Your task to perform on an android device: open app "DoorDash - Dasher" (install if not already installed) and go to login screen Image 0: 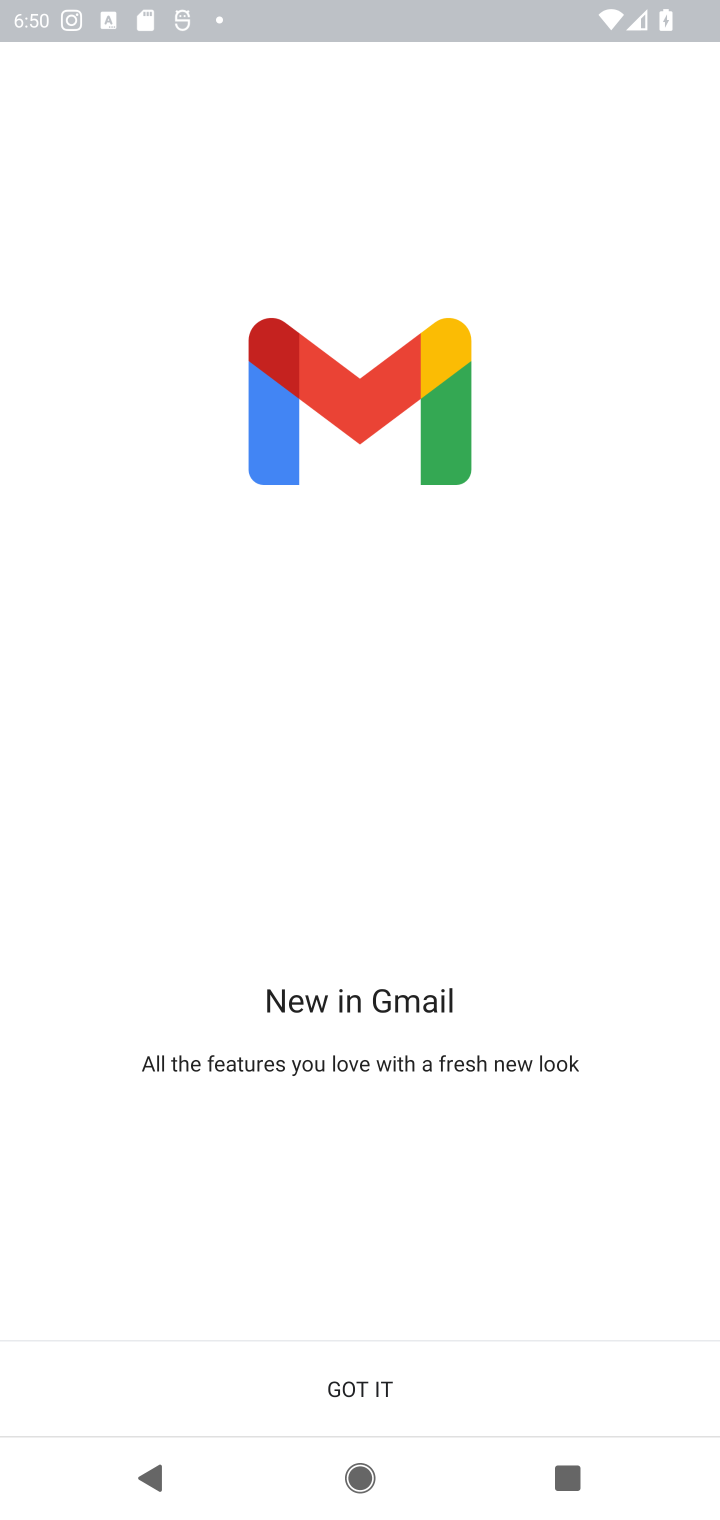
Step 0: press home button
Your task to perform on an android device: open app "DoorDash - Dasher" (install if not already installed) and go to login screen Image 1: 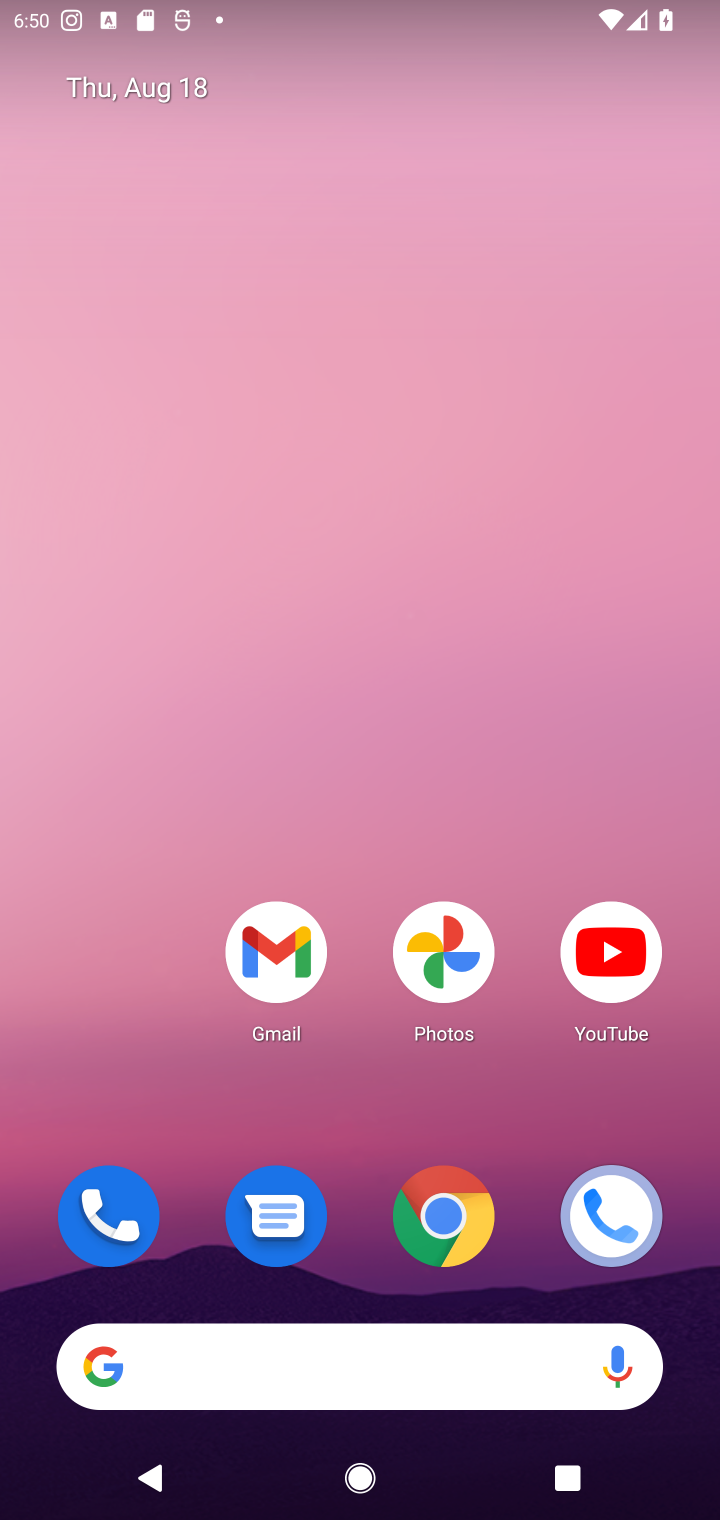
Step 1: drag from (362, 1104) to (360, 267)
Your task to perform on an android device: open app "DoorDash - Dasher" (install if not already installed) and go to login screen Image 2: 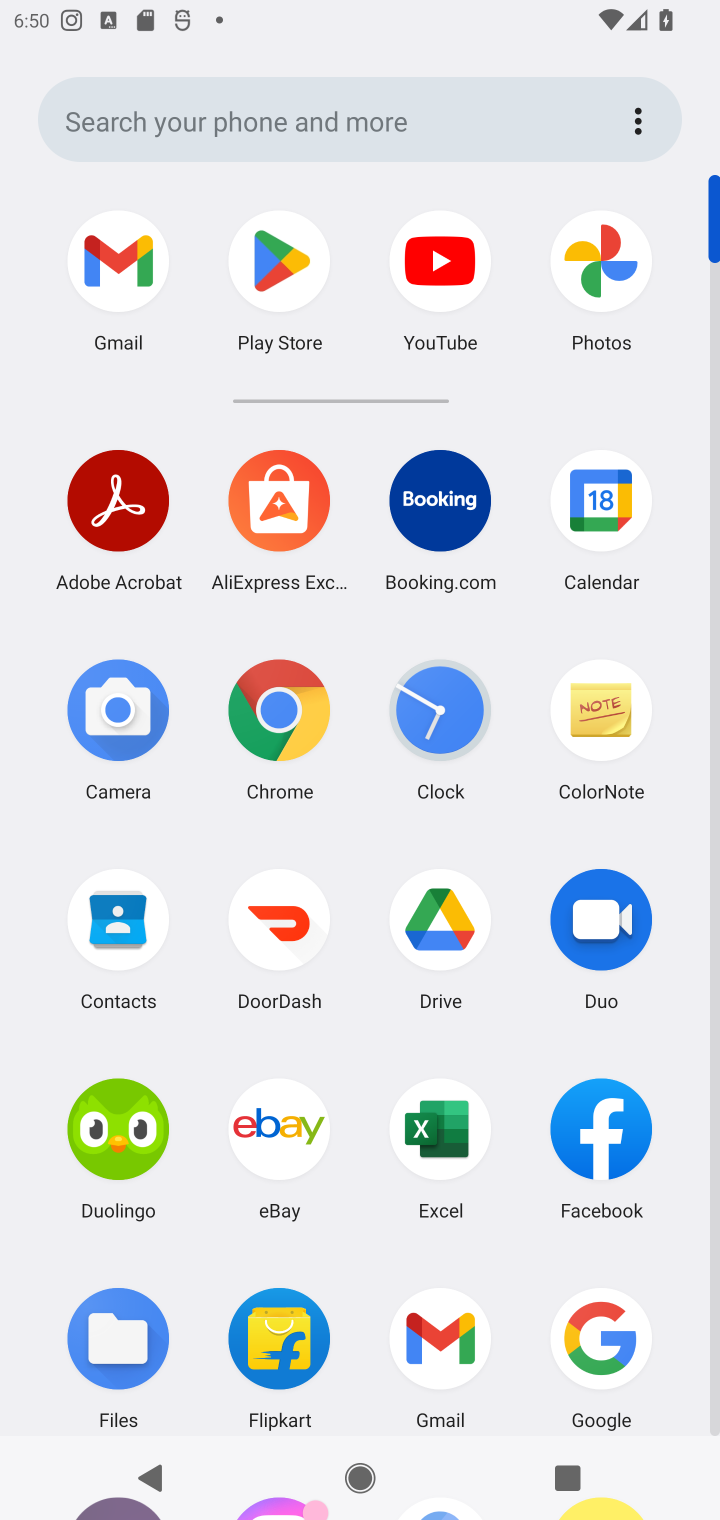
Step 2: click (280, 215)
Your task to perform on an android device: open app "DoorDash - Dasher" (install if not already installed) and go to login screen Image 3: 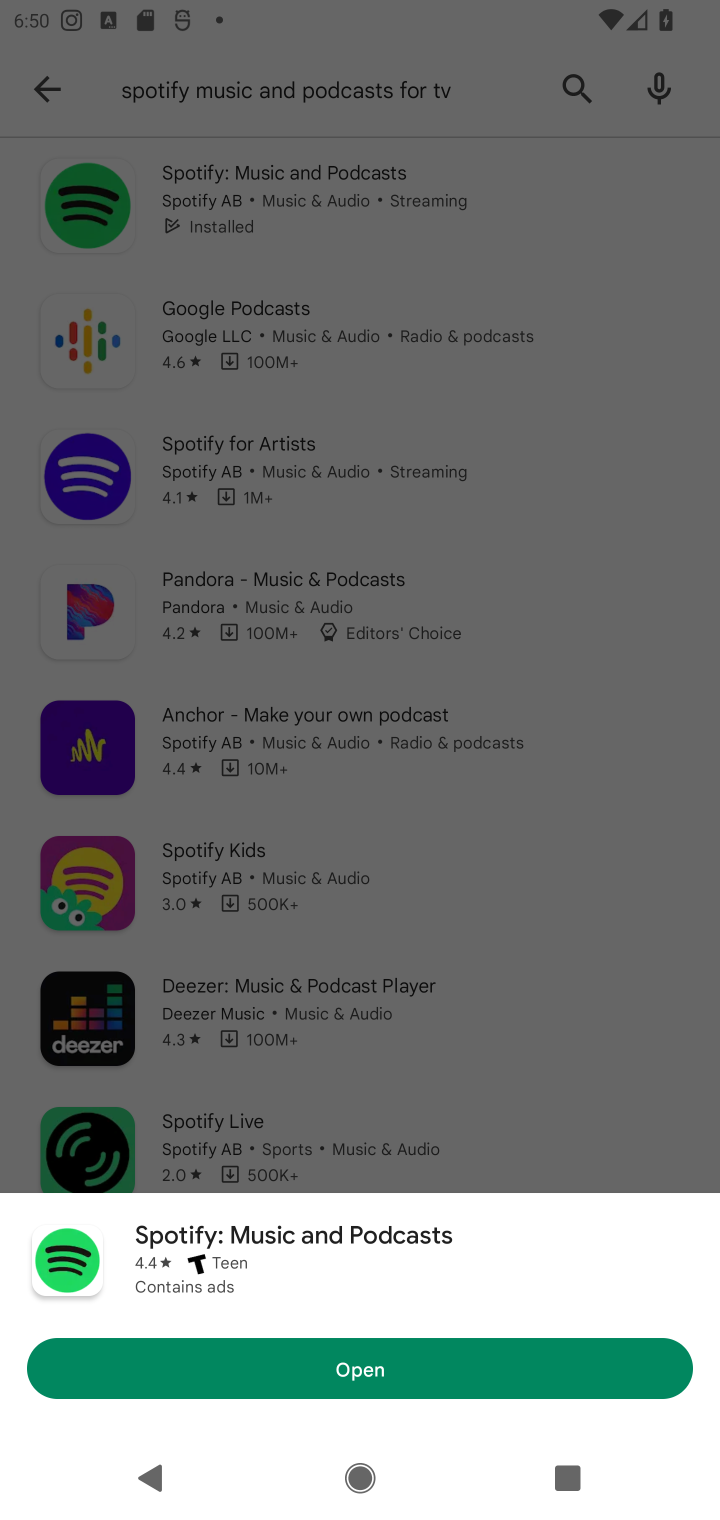
Step 3: click (595, 96)
Your task to perform on an android device: open app "DoorDash - Dasher" (install if not already installed) and go to login screen Image 4: 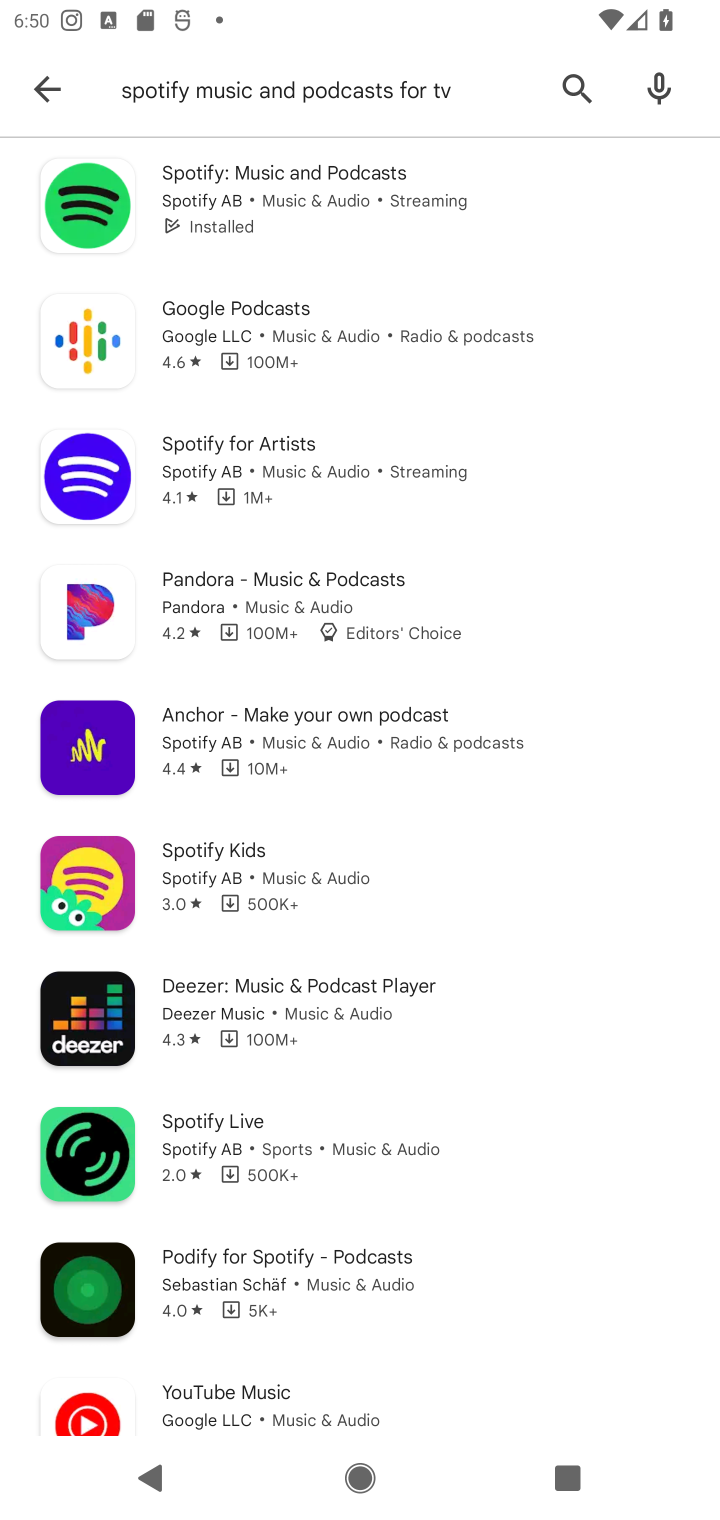
Step 4: click (580, 96)
Your task to perform on an android device: open app "DoorDash - Dasher" (install if not already installed) and go to login screen Image 5: 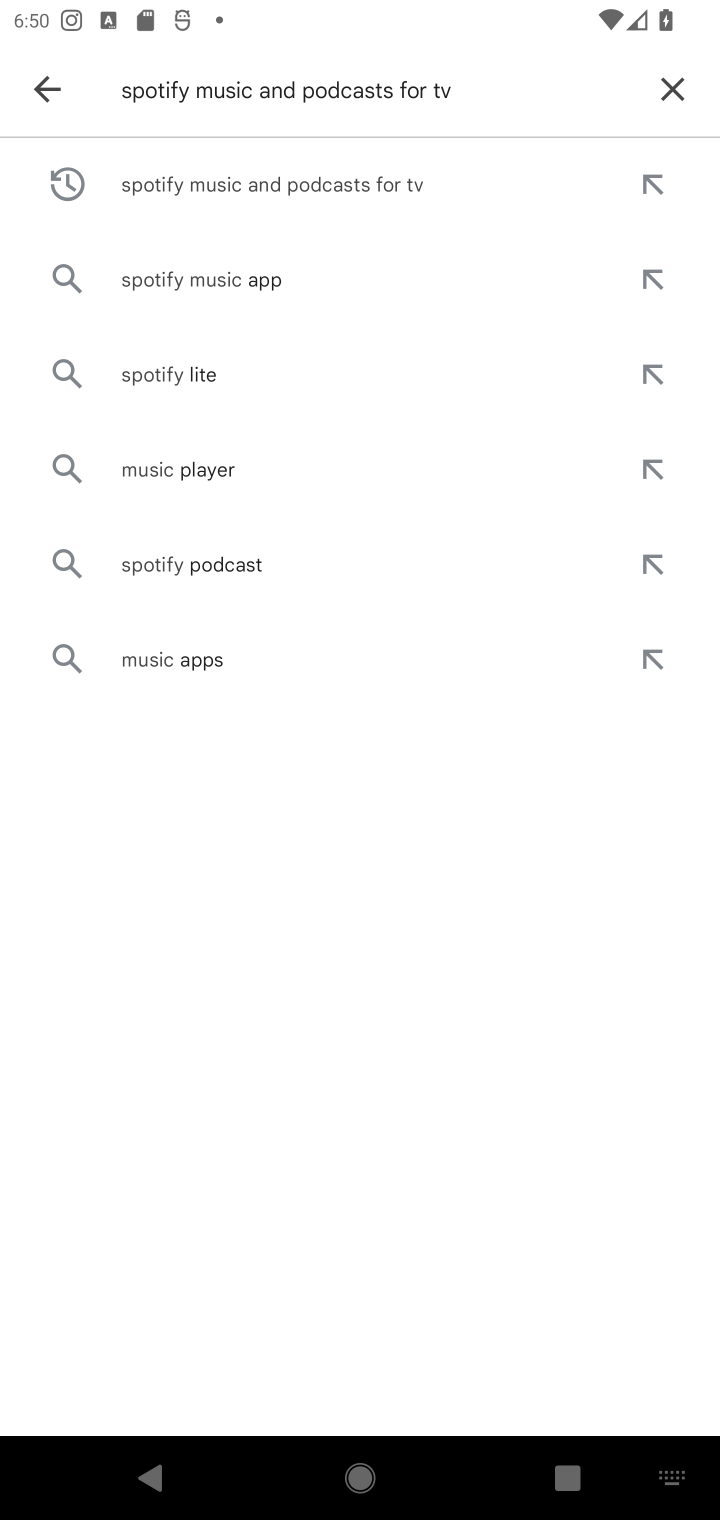
Step 5: click (681, 57)
Your task to perform on an android device: open app "DoorDash - Dasher" (install if not already installed) and go to login screen Image 6: 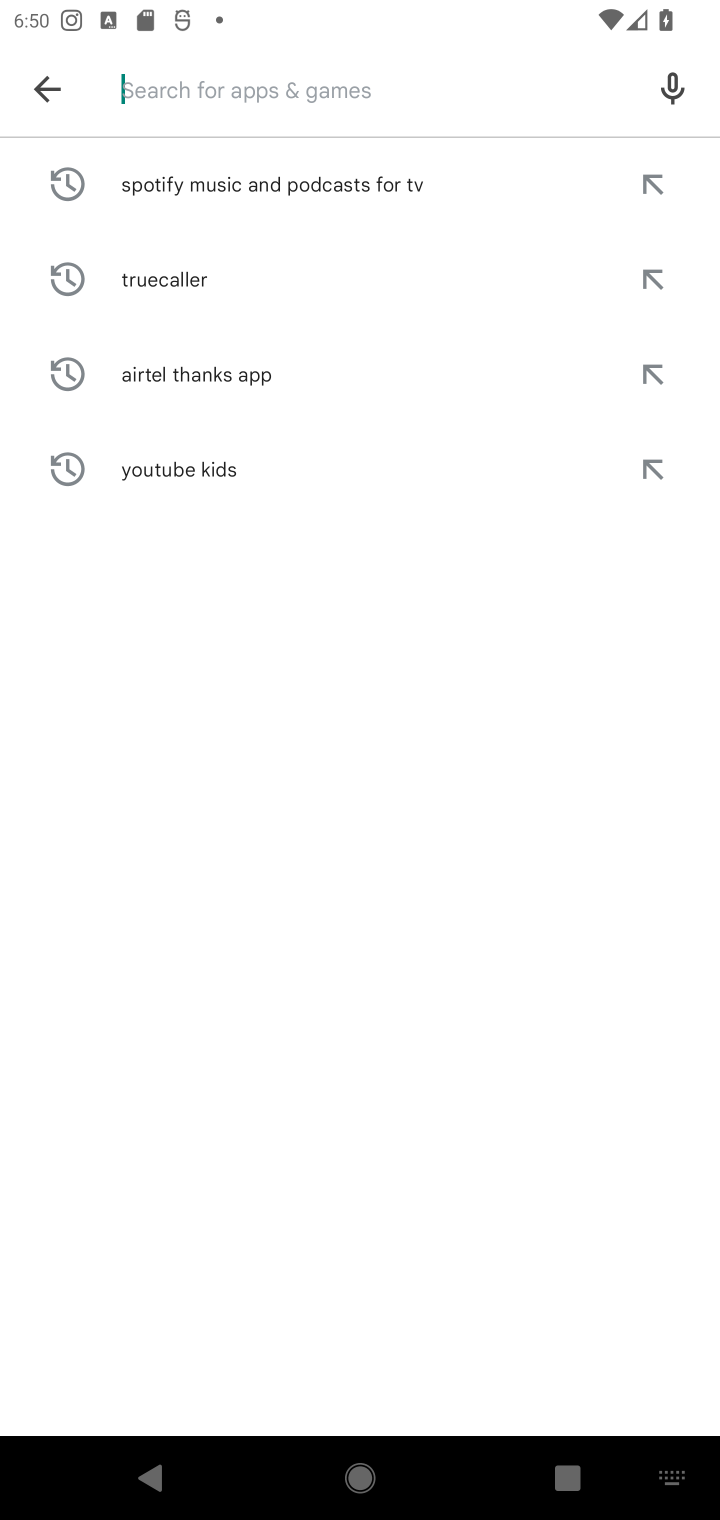
Step 6: type "DoorDash - Dasher"
Your task to perform on an android device: open app "DoorDash - Dasher" (install if not already installed) and go to login screen Image 7: 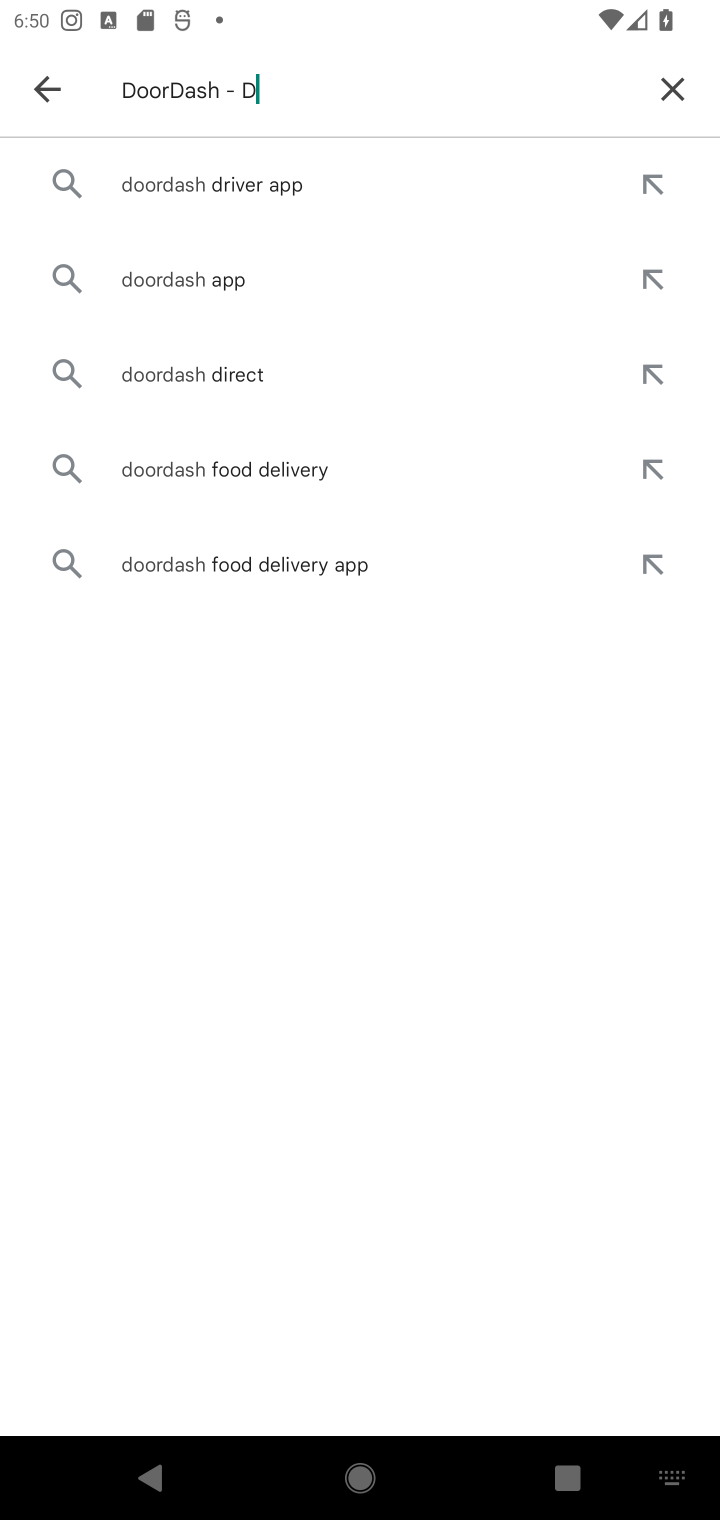
Step 7: type ""
Your task to perform on an android device: open app "DoorDash - Dasher" (install if not already installed) and go to login screen Image 8: 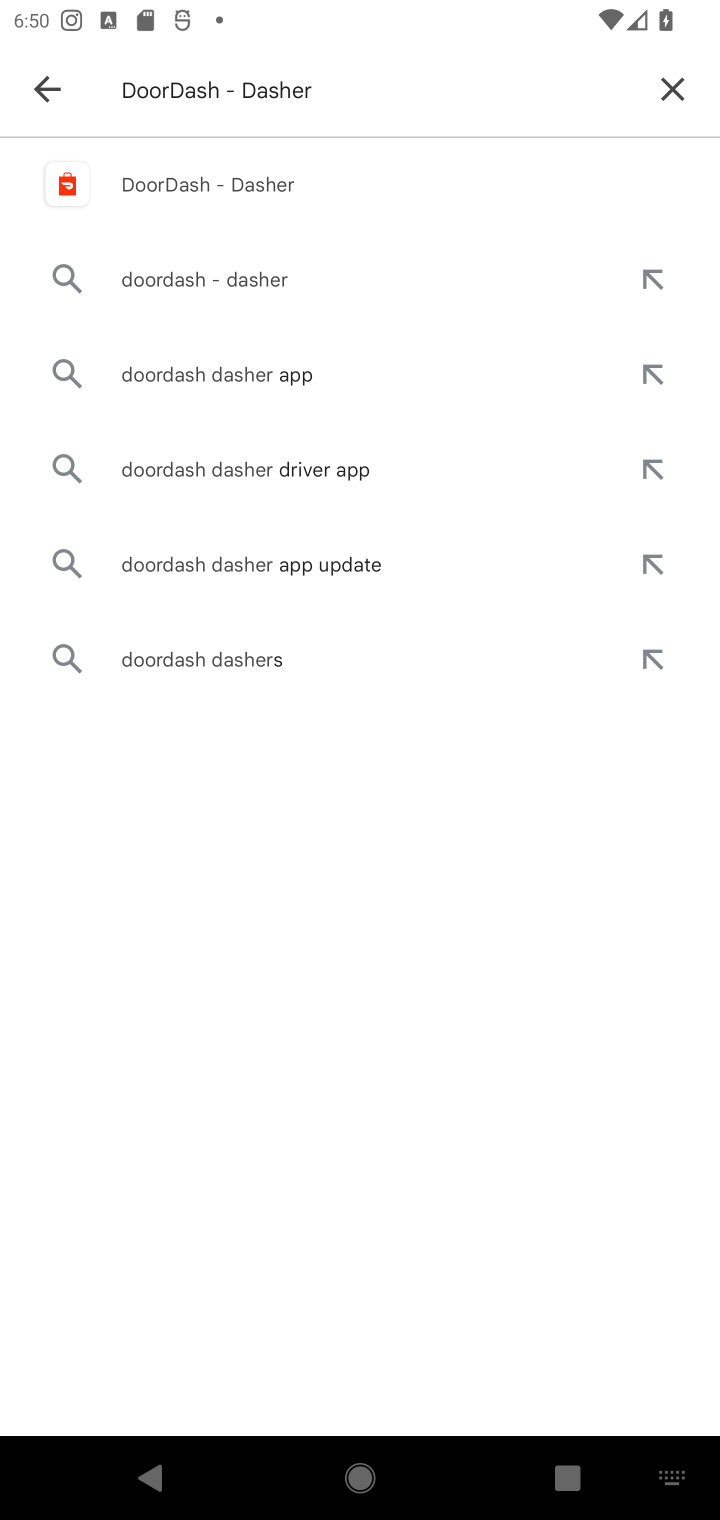
Step 8: click (240, 187)
Your task to perform on an android device: open app "DoorDash - Dasher" (install if not already installed) and go to login screen Image 9: 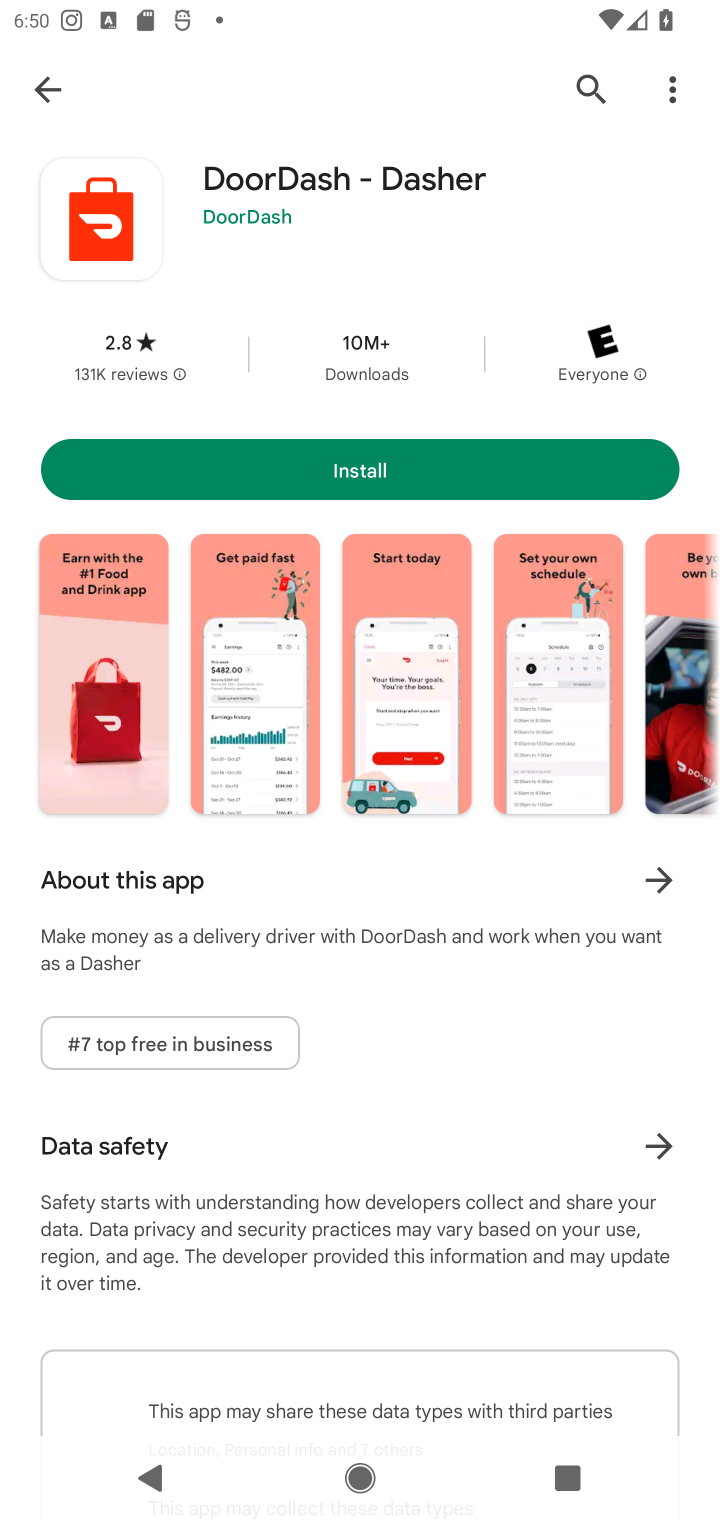
Step 9: click (312, 477)
Your task to perform on an android device: open app "DoorDash - Dasher" (install if not already installed) and go to login screen Image 10: 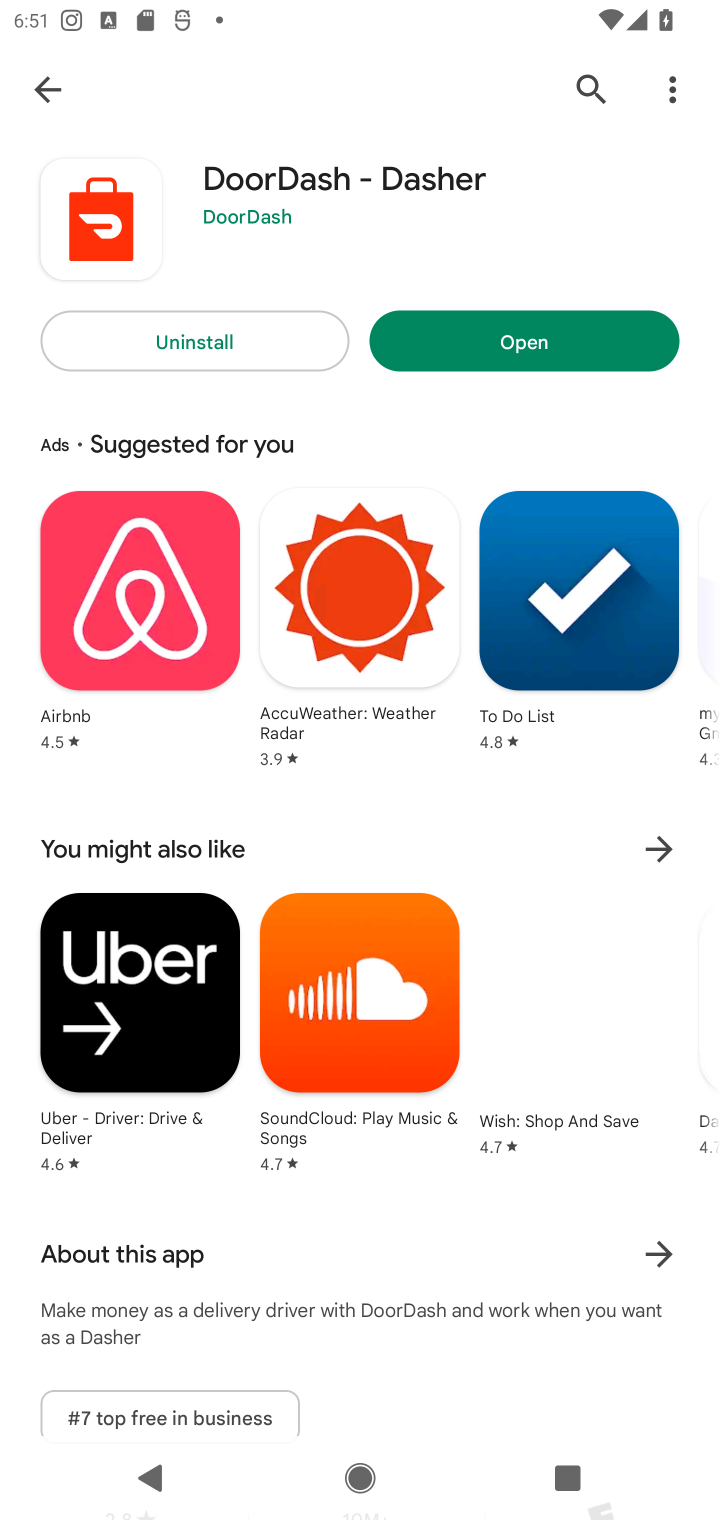
Step 10: click (633, 350)
Your task to perform on an android device: open app "DoorDash - Dasher" (install if not already installed) and go to login screen Image 11: 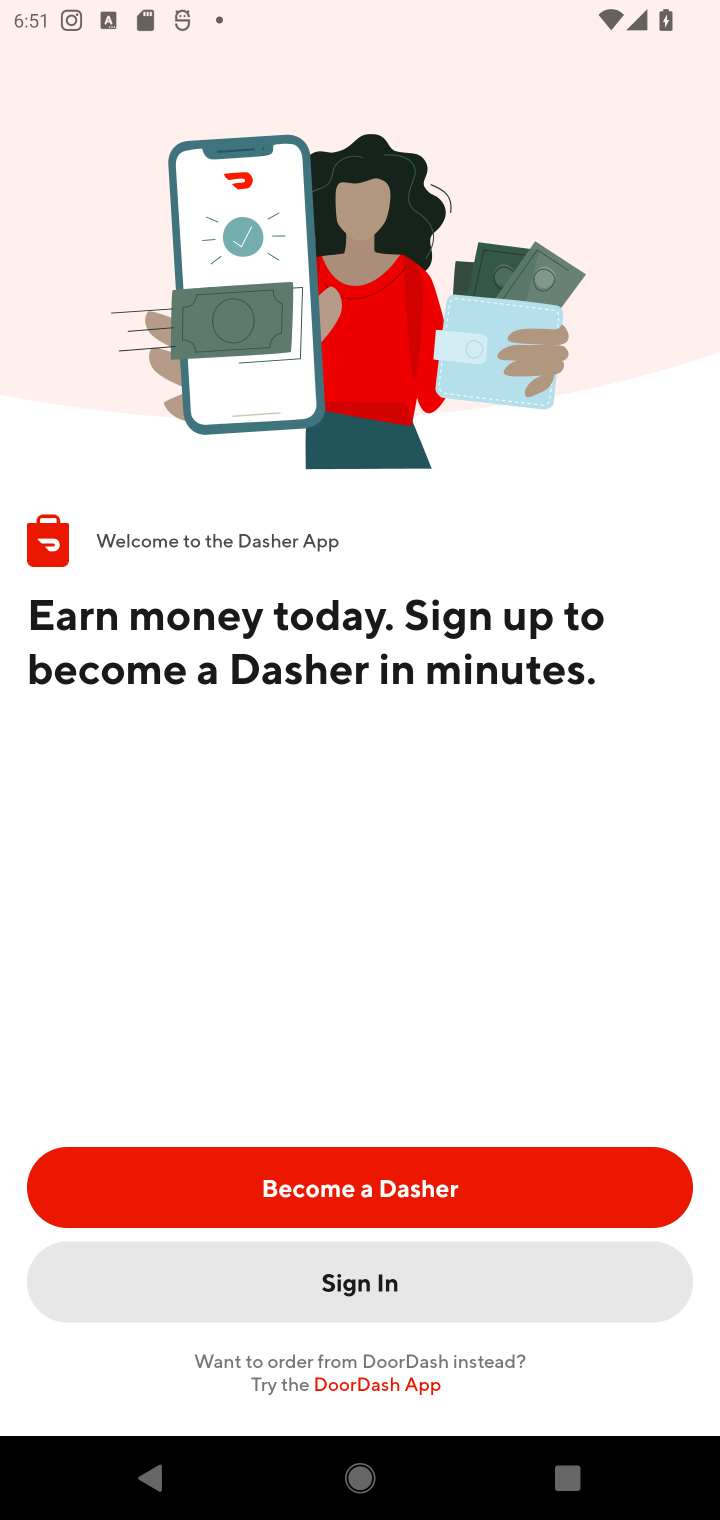
Step 11: task complete